Your task to perform on an android device: Go to Google maps Image 0: 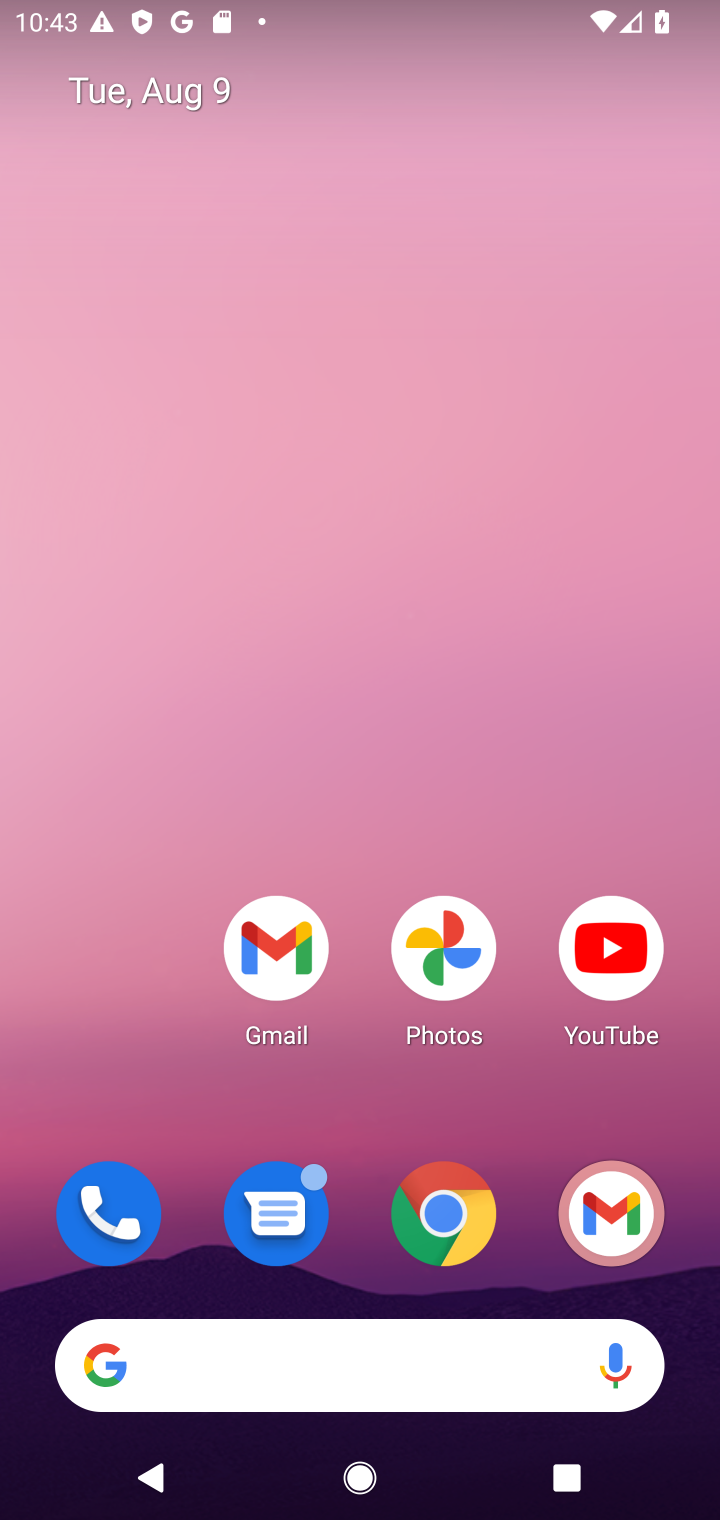
Step 0: drag from (423, 1294) to (479, 27)
Your task to perform on an android device: Go to Google maps Image 1: 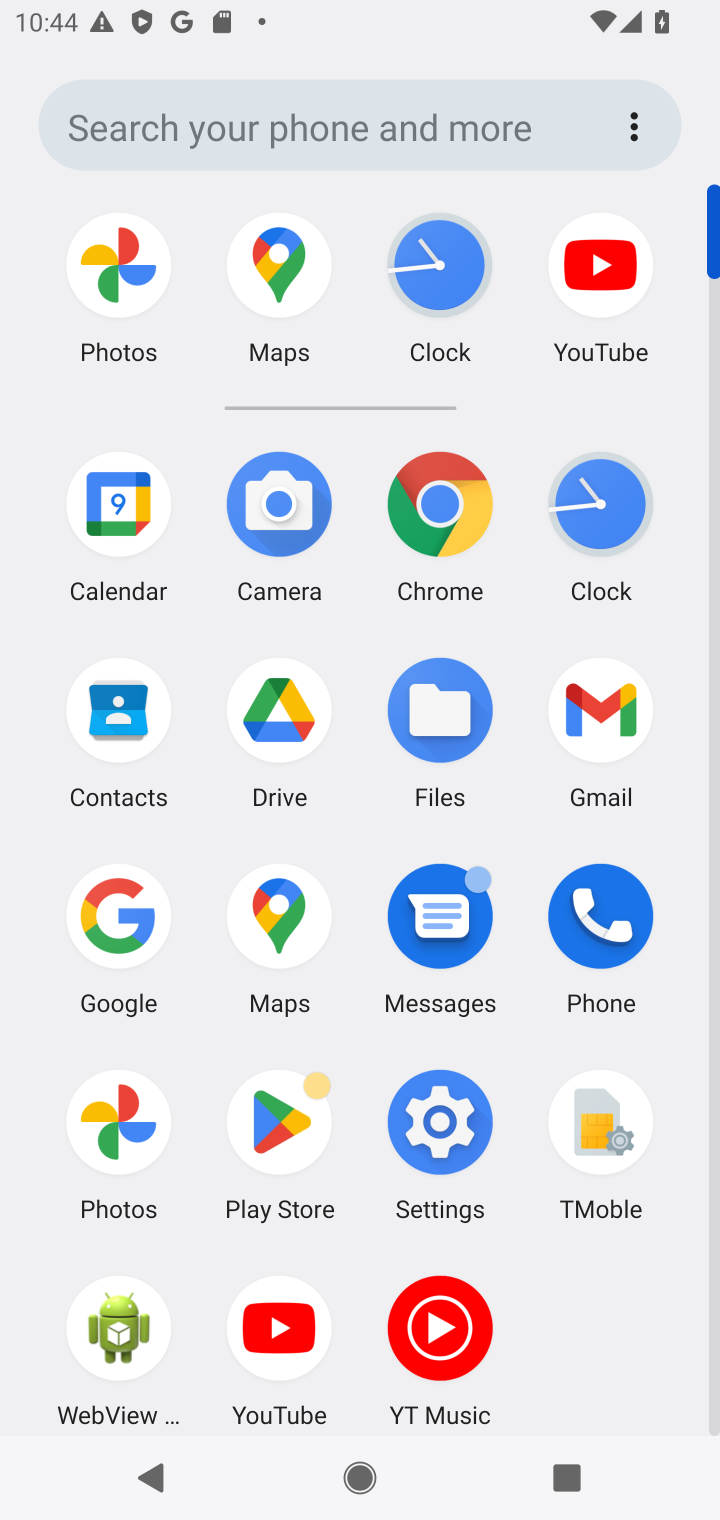
Step 1: click (276, 941)
Your task to perform on an android device: Go to Google maps Image 2: 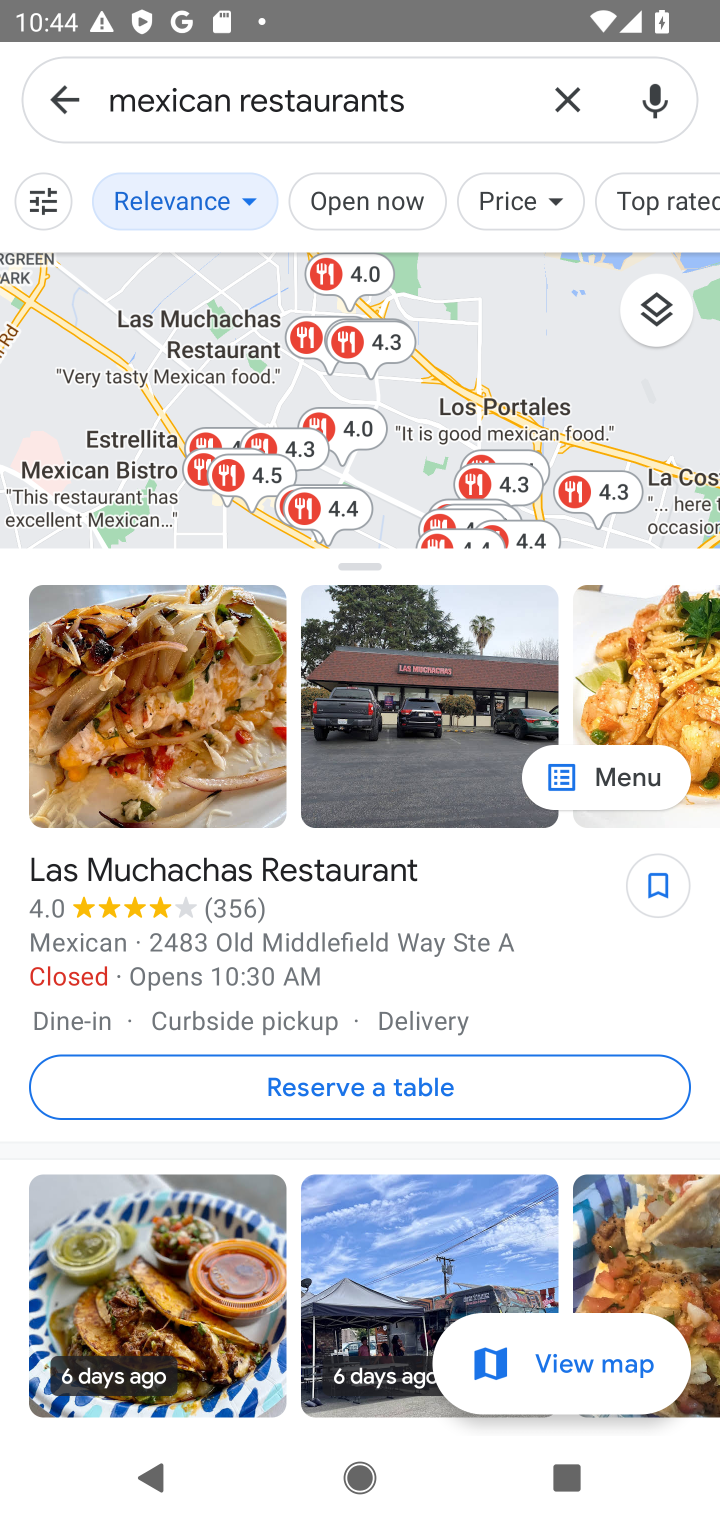
Step 2: click (37, 96)
Your task to perform on an android device: Go to Google maps Image 3: 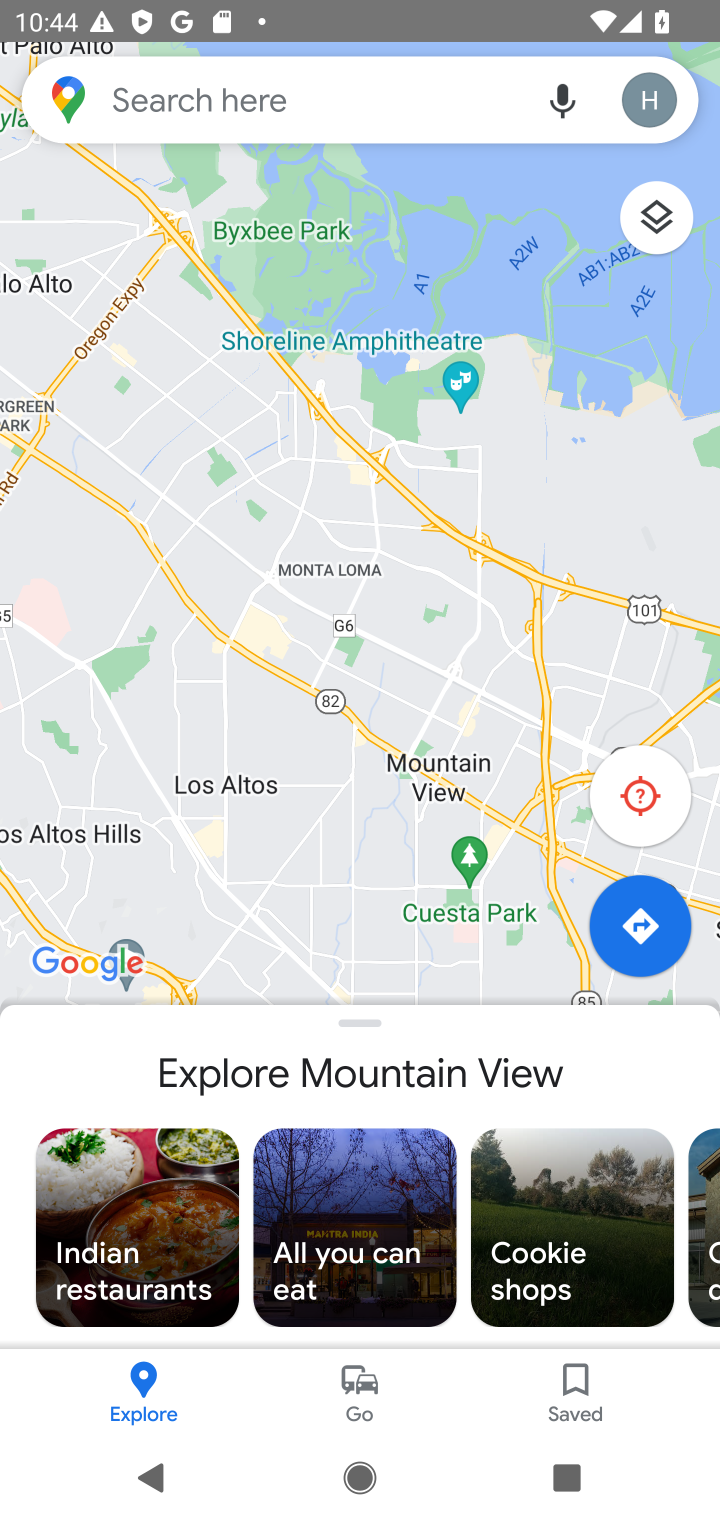
Step 3: task complete